Your task to perform on an android device: Search for a nice rug on Crate & Barrel Image 0: 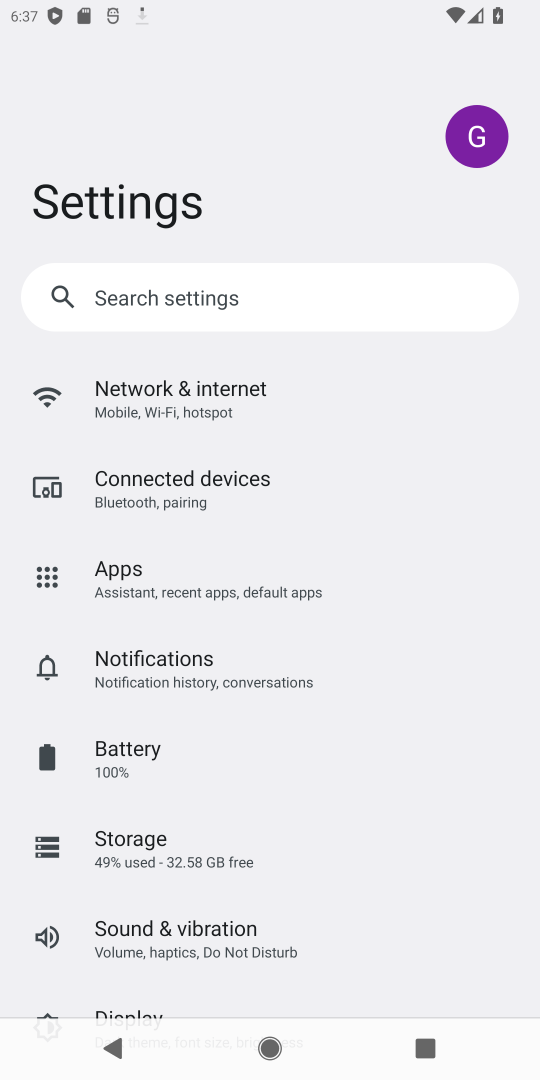
Step 0: press home button
Your task to perform on an android device: Search for a nice rug on Crate & Barrel Image 1: 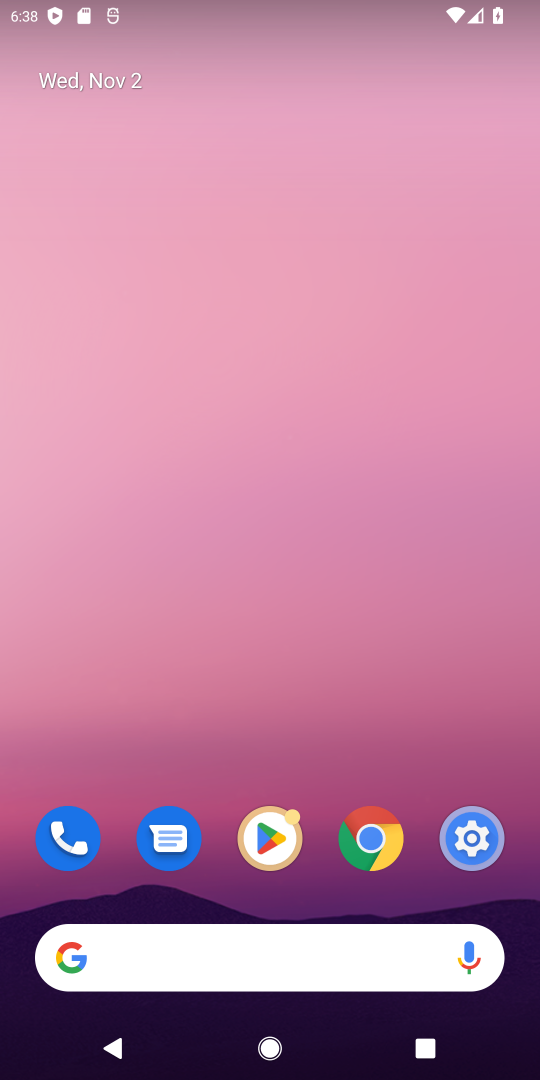
Step 1: drag from (333, 859) to (373, 133)
Your task to perform on an android device: Search for a nice rug on Crate & Barrel Image 2: 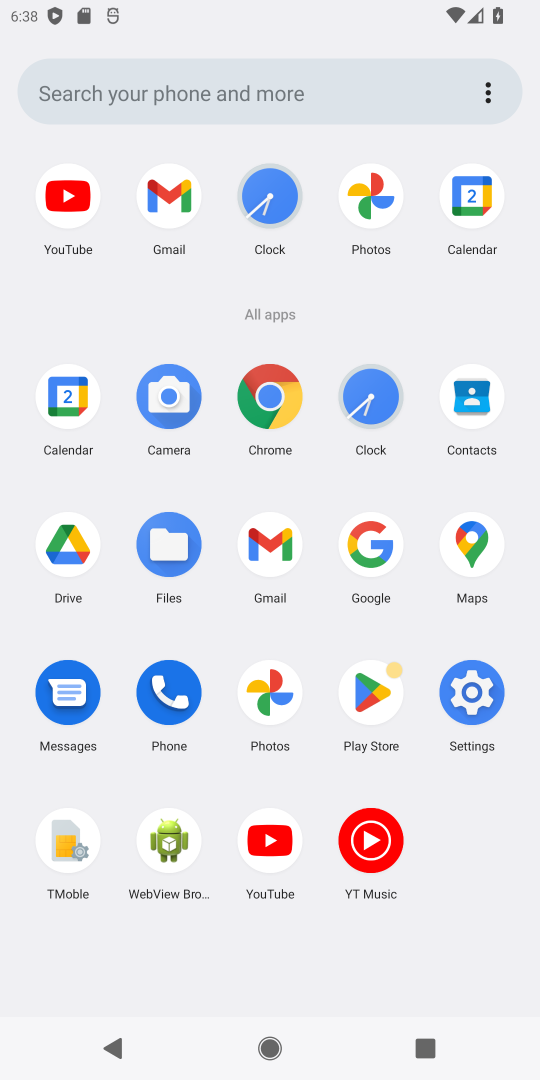
Step 2: click (280, 397)
Your task to perform on an android device: Search for a nice rug on Crate & Barrel Image 3: 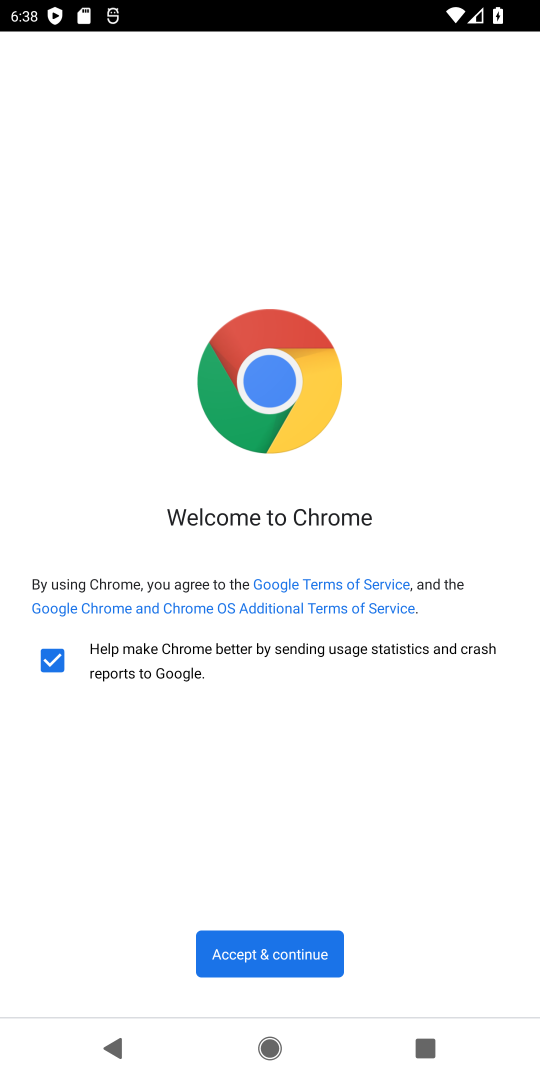
Step 3: click (301, 955)
Your task to perform on an android device: Search for a nice rug on Crate & Barrel Image 4: 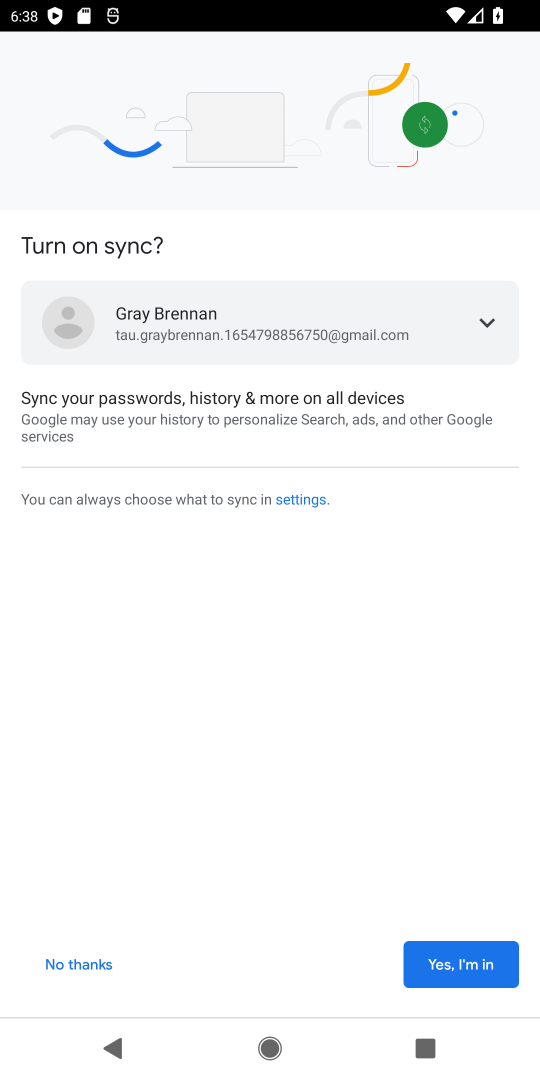
Step 4: click (468, 959)
Your task to perform on an android device: Search for a nice rug on Crate & Barrel Image 5: 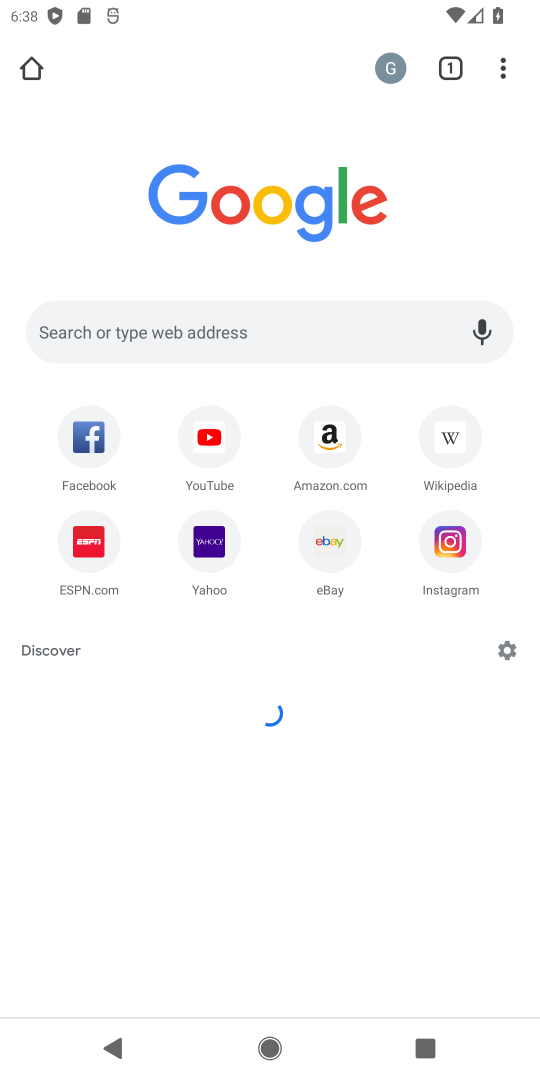
Step 5: click (297, 318)
Your task to perform on an android device: Search for a nice rug on Crate & Barrel Image 6: 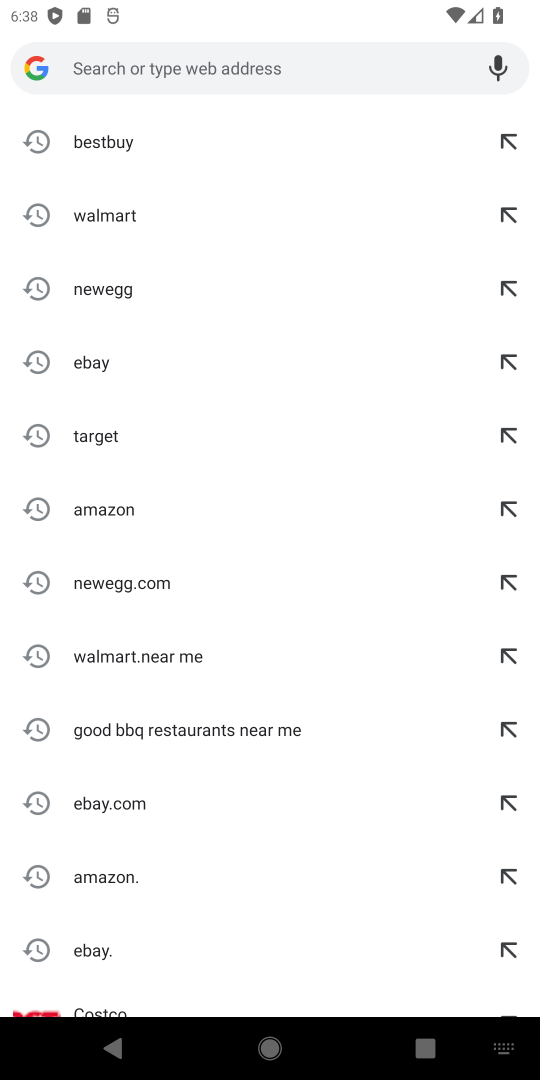
Step 6: type "Crate & Barrel"
Your task to perform on an android device: Search for a nice rug on Crate & Barrel Image 7: 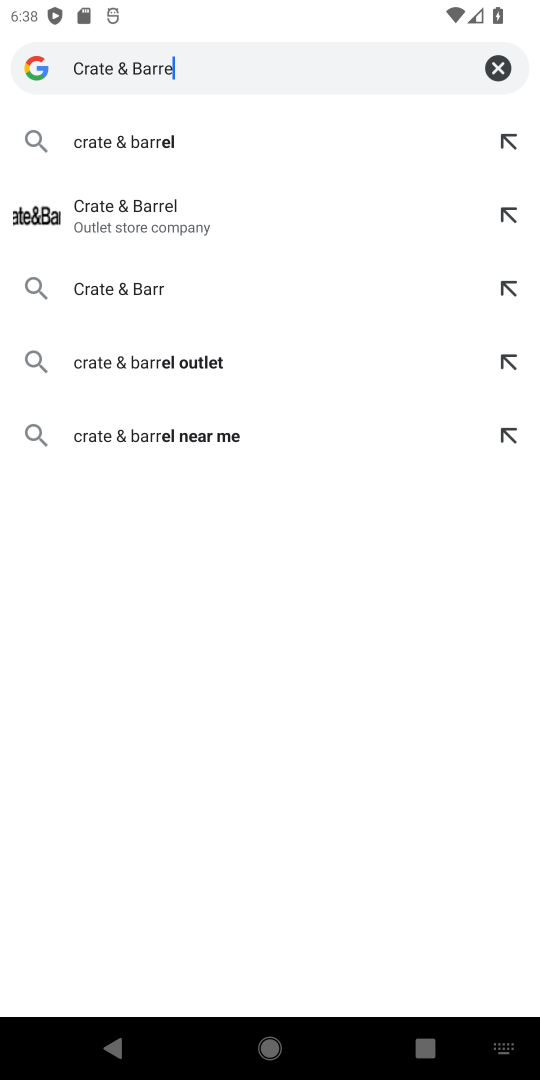
Step 7: press enter
Your task to perform on an android device: Search for a nice rug on Crate & Barrel Image 8: 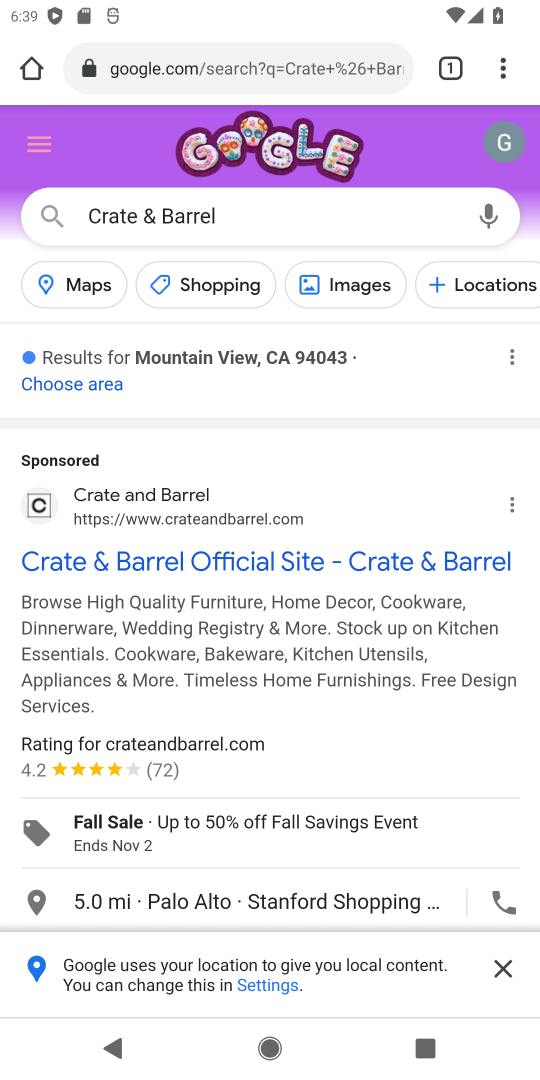
Step 8: drag from (210, 897) to (273, 160)
Your task to perform on an android device: Search for a nice rug on Crate & Barrel Image 9: 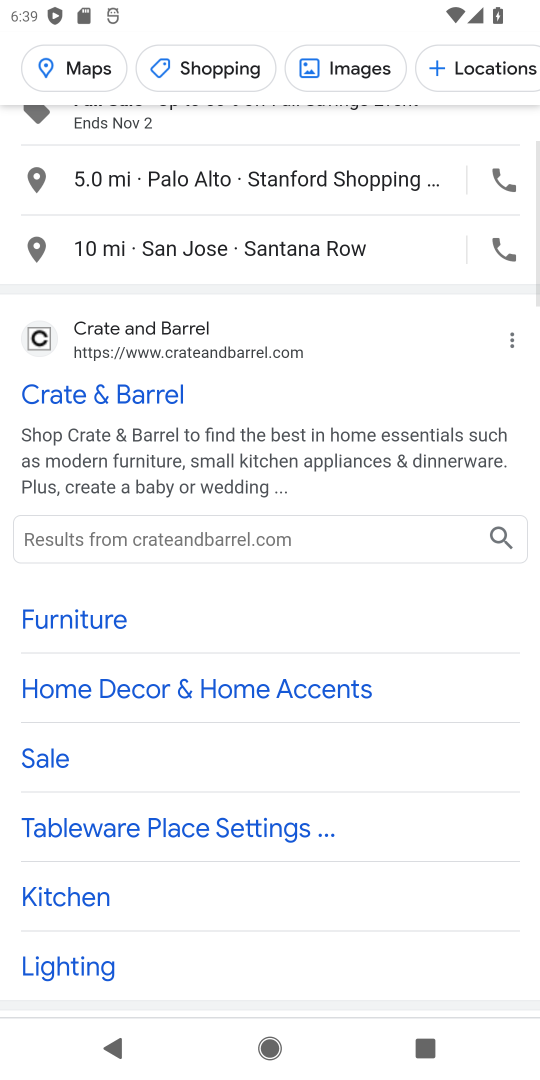
Step 9: drag from (266, 802) to (265, 207)
Your task to perform on an android device: Search for a nice rug on Crate & Barrel Image 10: 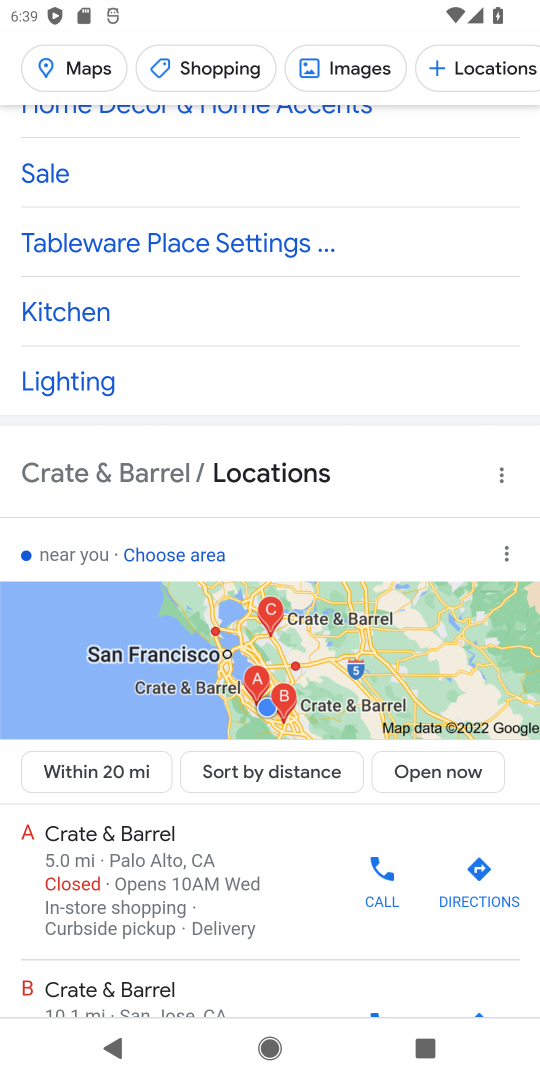
Step 10: drag from (225, 899) to (306, 143)
Your task to perform on an android device: Search for a nice rug on Crate & Barrel Image 11: 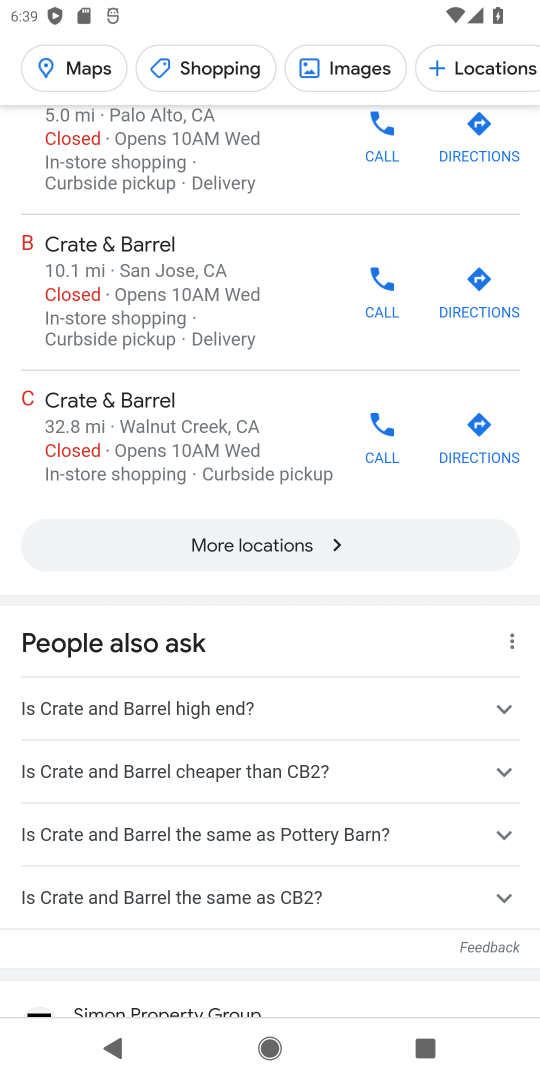
Step 11: drag from (266, 842) to (322, 170)
Your task to perform on an android device: Search for a nice rug on Crate & Barrel Image 12: 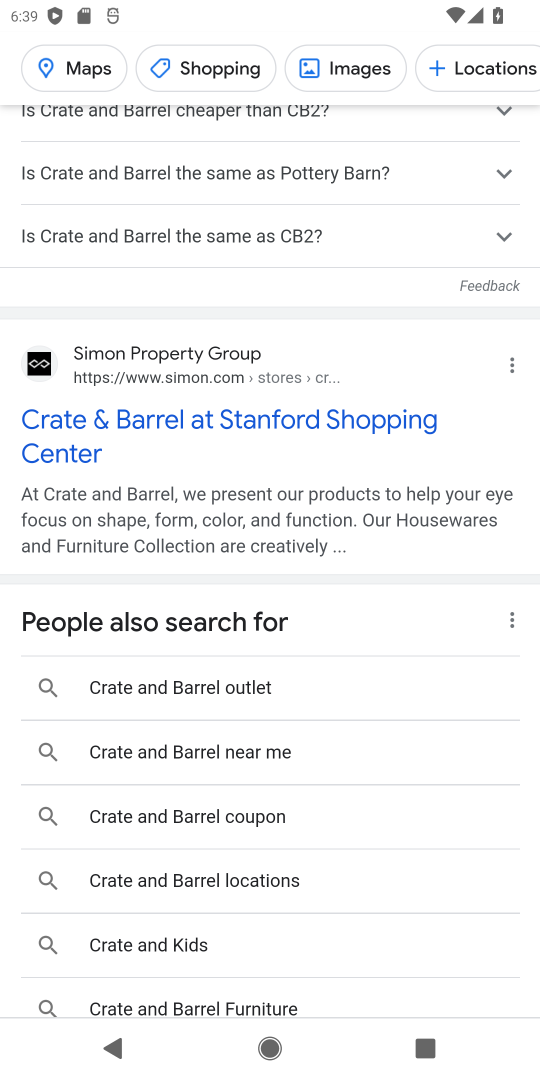
Step 12: drag from (330, 189) to (264, 1067)
Your task to perform on an android device: Search for a nice rug on Crate & Barrel Image 13: 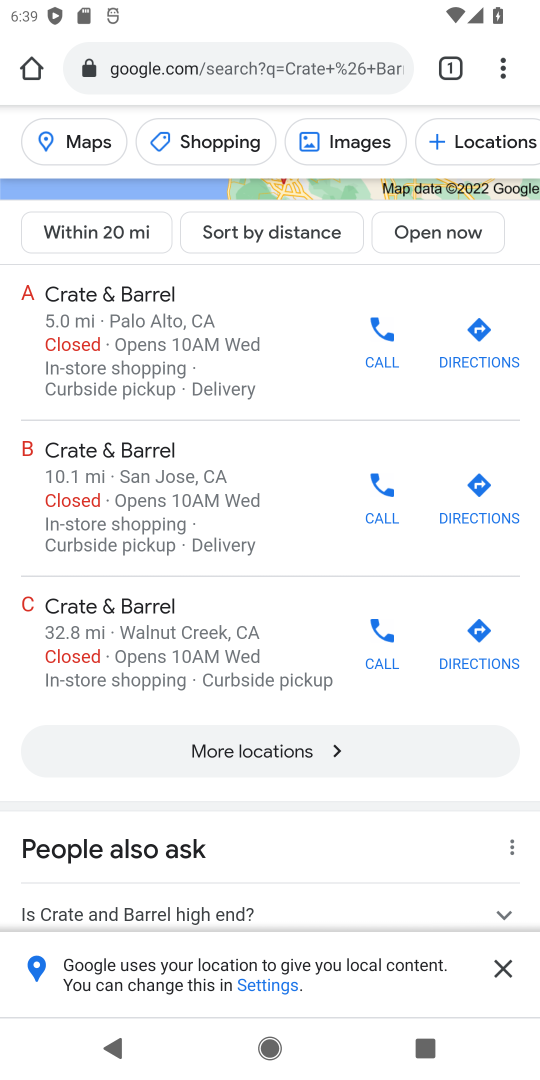
Step 13: drag from (265, 227) to (350, 956)
Your task to perform on an android device: Search for a nice rug on Crate & Barrel Image 14: 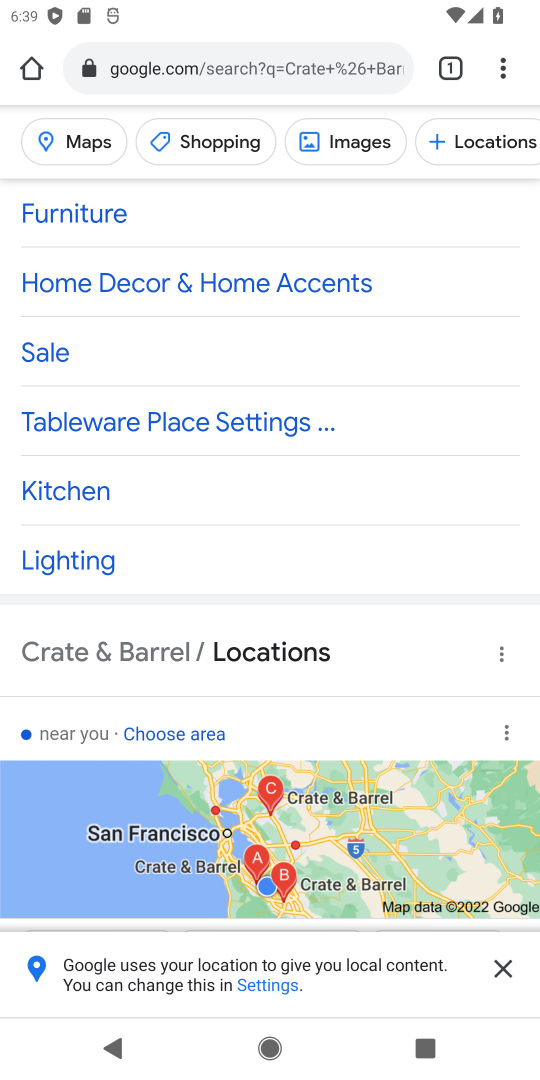
Step 14: drag from (359, 237) to (259, 794)
Your task to perform on an android device: Search for a nice rug on Crate & Barrel Image 15: 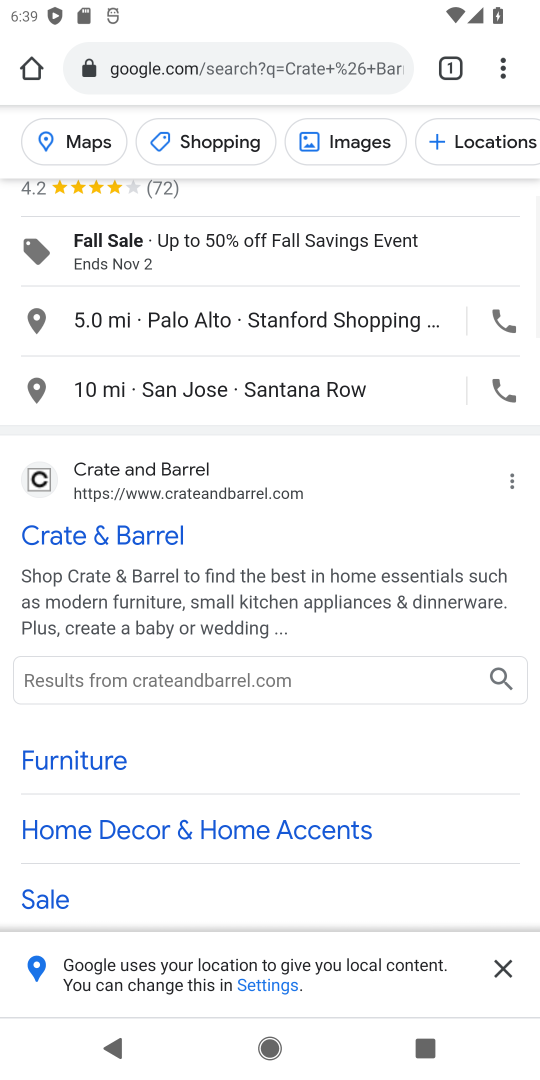
Step 15: drag from (331, 347) to (268, 601)
Your task to perform on an android device: Search for a nice rug on Crate & Barrel Image 16: 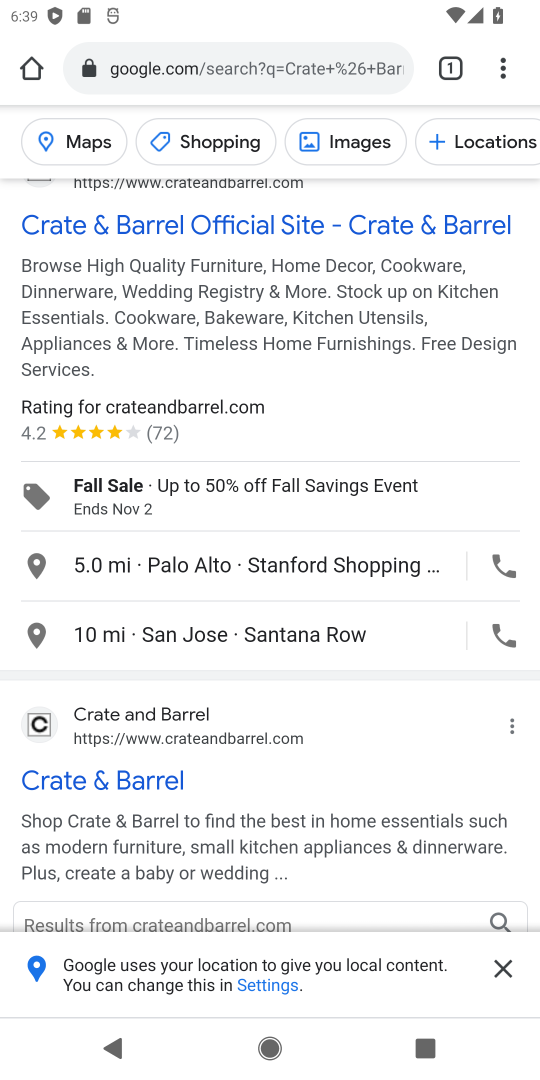
Step 16: click (140, 784)
Your task to perform on an android device: Search for a nice rug on Crate & Barrel Image 17: 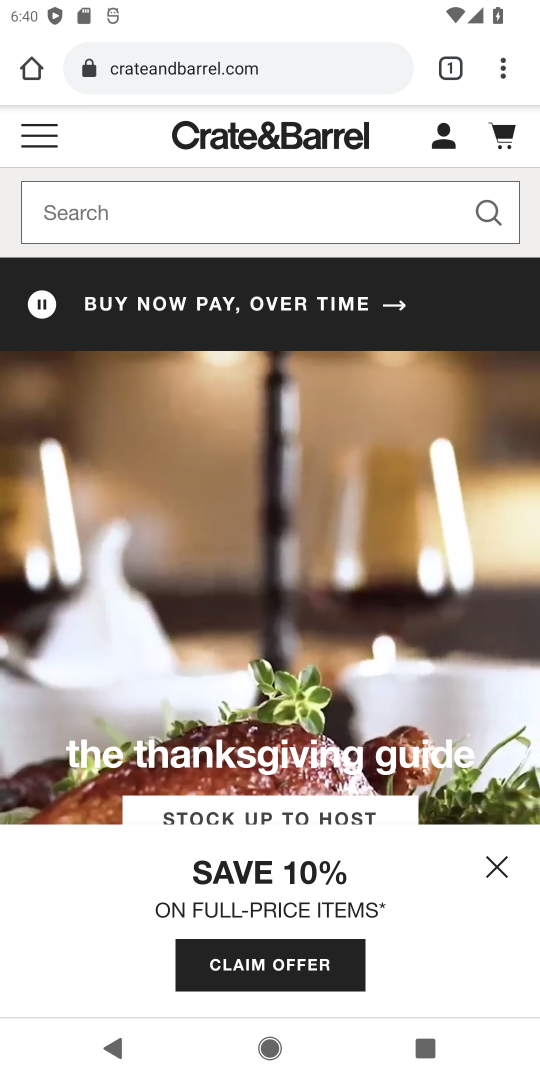
Step 17: click (270, 206)
Your task to perform on an android device: Search for a nice rug on Crate & Barrel Image 18: 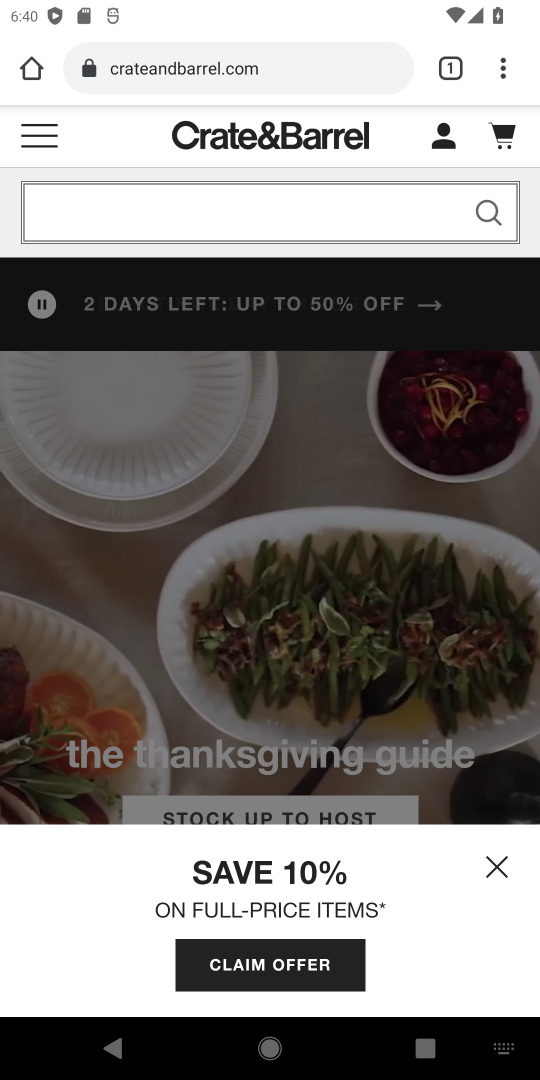
Step 18: type "nice rug"
Your task to perform on an android device: Search for a nice rug on Crate & Barrel Image 19: 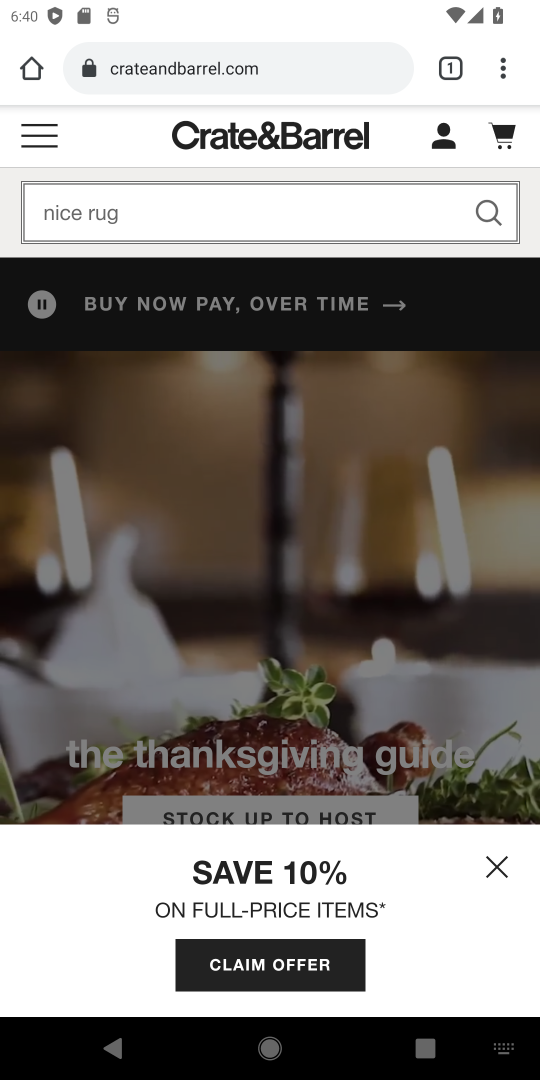
Step 19: press enter
Your task to perform on an android device: Search for a nice rug on Crate & Barrel Image 20: 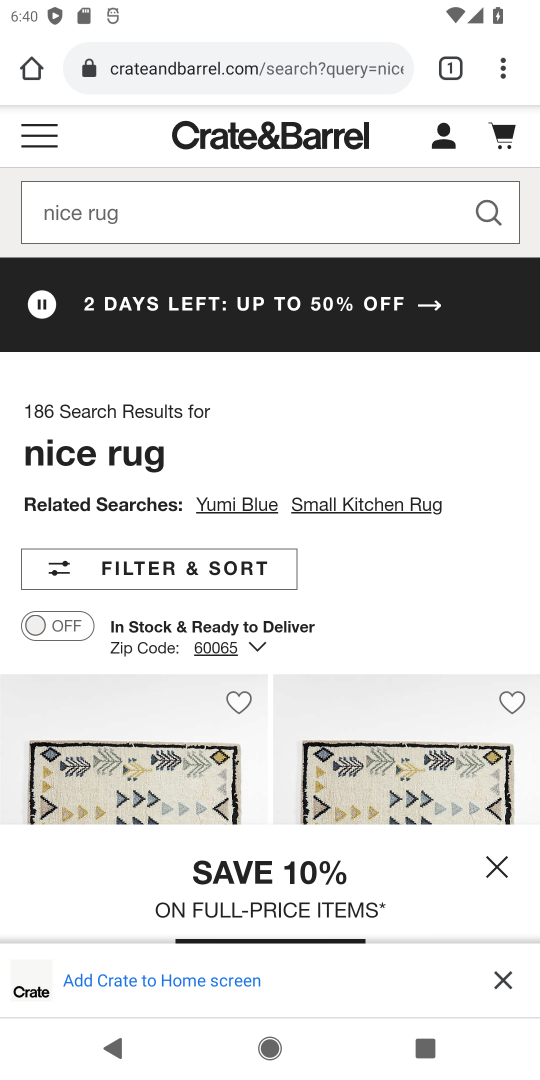
Step 20: drag from (227, 776) to (444, 304)
Your task to perform on an android device: Search for a nice rug on Crate & Barrel Image 21: 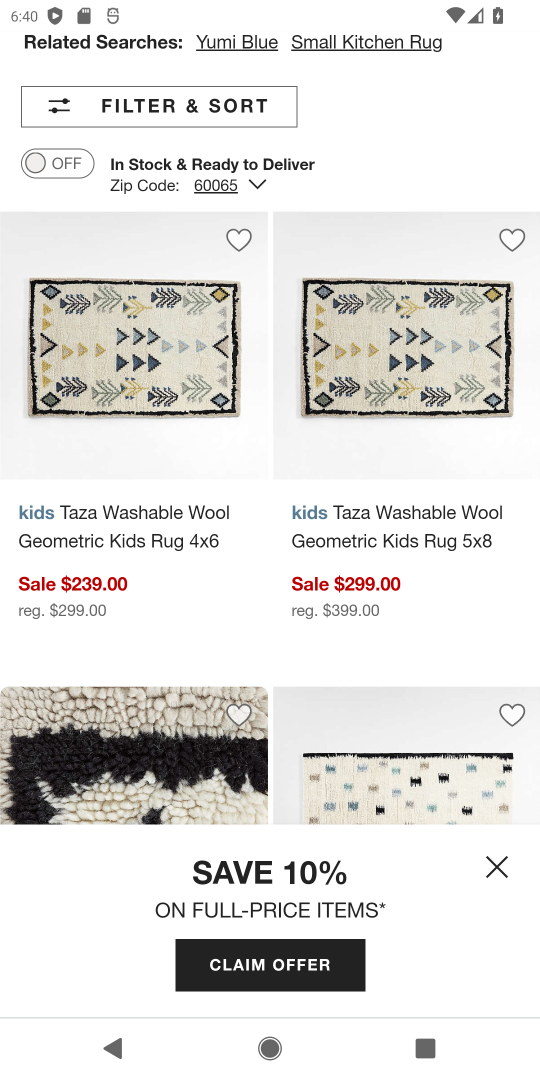
Step 21: click (117, 520)
Your task to perform on an android device: Search for a nice rug on Crate & Barrel Image 22: 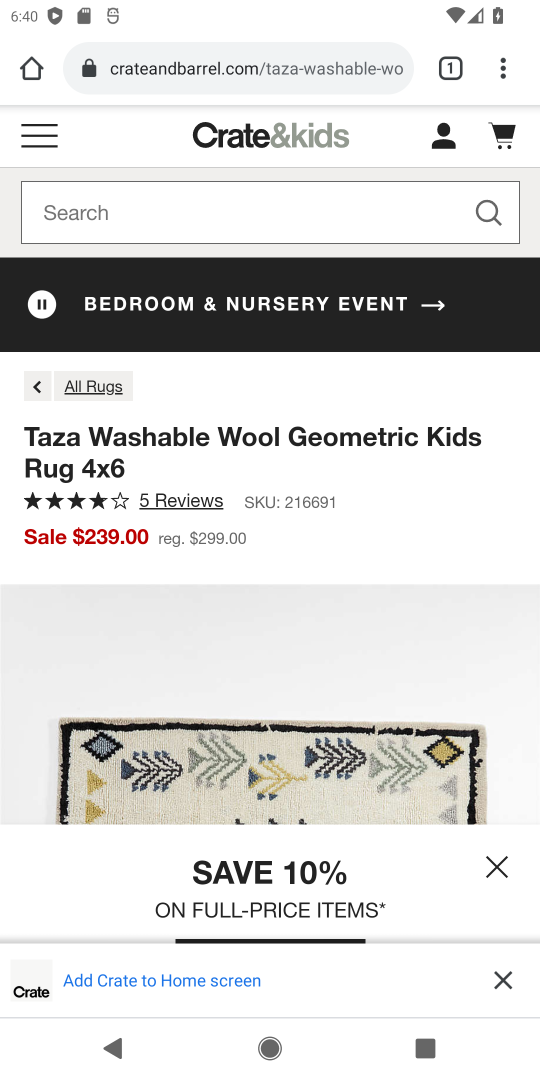
Step 22: task complete